Your task to perform on an android device: add a contact in the contacts app Image 0: 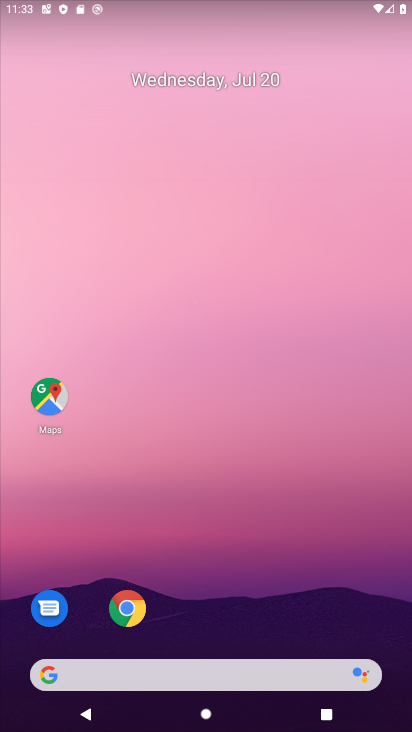
Step 0: drag from (391, 618) to (202, 41)
Your task to perform on an android device: add a contact in the contacts app Image 1: 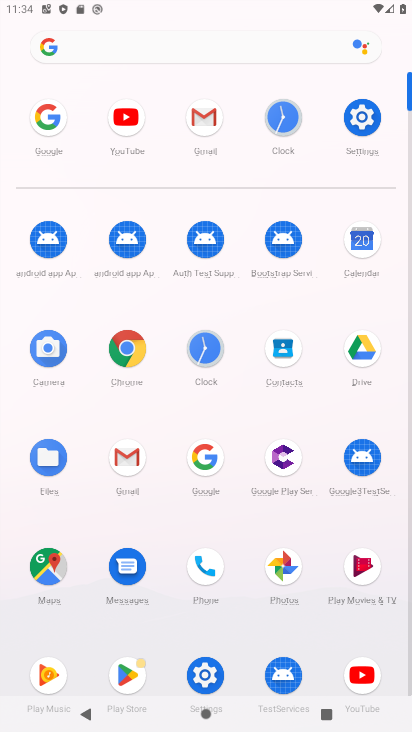
Step 1: click (306, 360)
Your task to perform on an android device: add a contact in the contacts app Image 2: 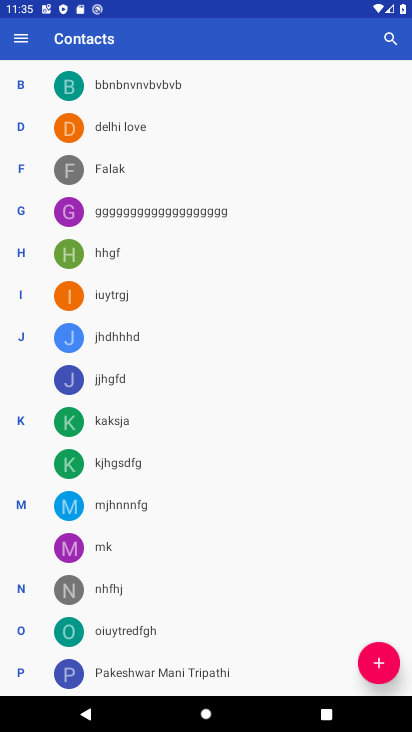
Step 2: click (371, 666)
Your task to perform on an android device: add a contact in the contacts app Image 3: 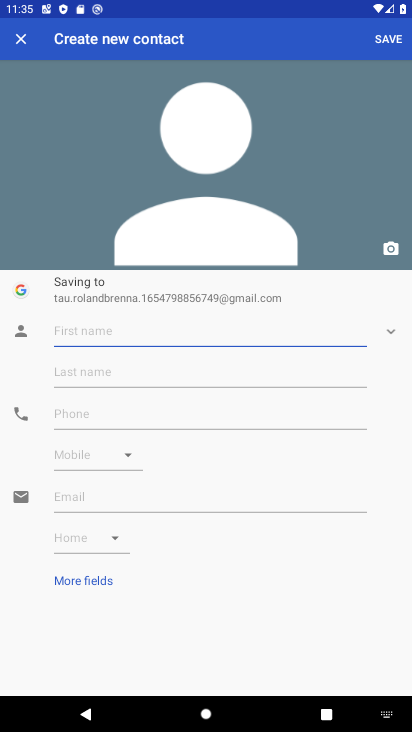
Step 3: type "karthik"
Your task to perform on an android device: add a contact in the contacts app Image 4: 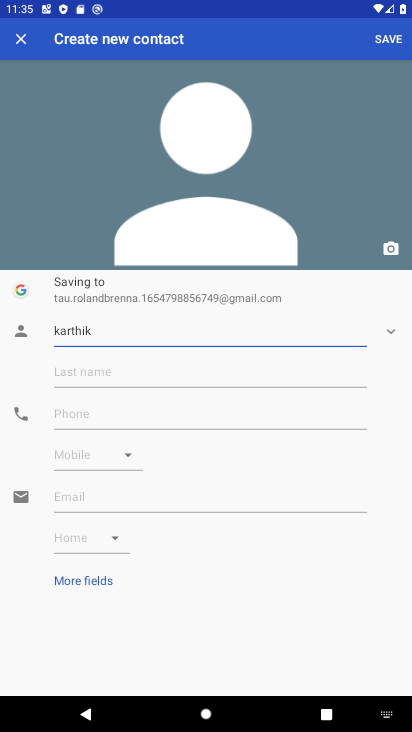
Step 4: click (383, 41)
Your task to perform on an android device: add a contact in the contacts app Image 5: 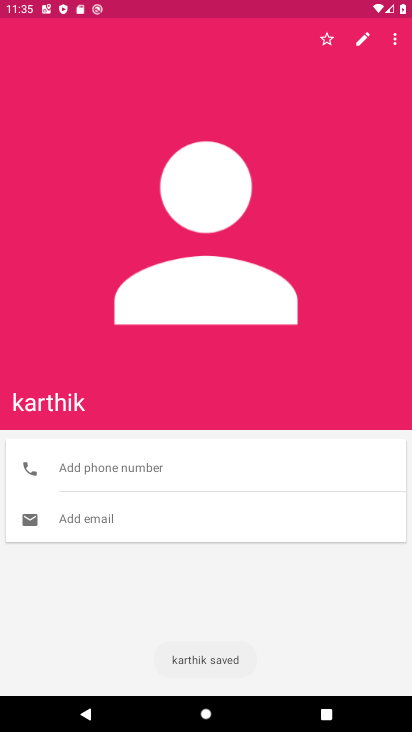
Step 5: task complete